Your task to perform on an android device: turn off wifi Image 0: 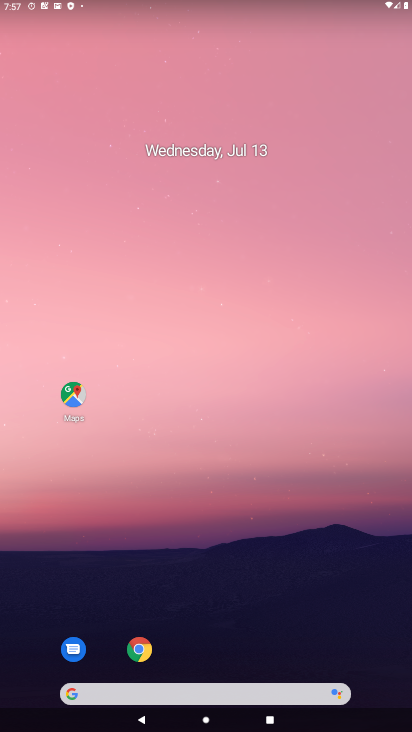
Step 0: drag from (188, 622) to (214, 32)
Your task to perform on an android device: turn off wifi Image 1: 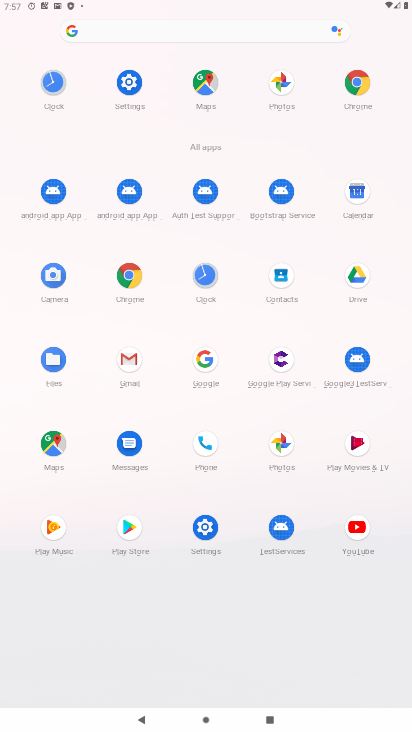
Step 1: click (198, 530)
Your task to perform on an android device: turn off wifi Image 2: 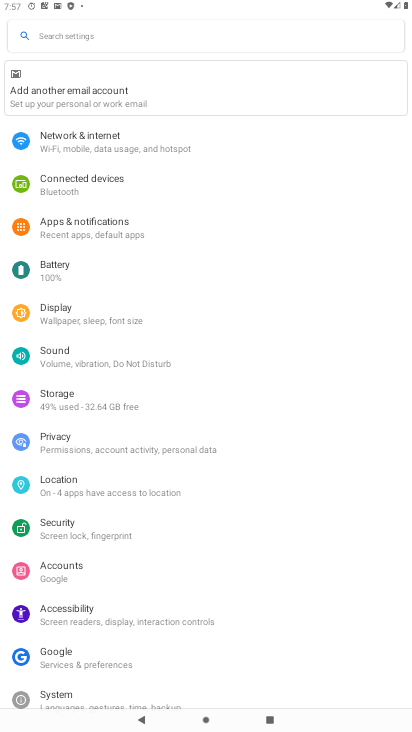
Step 2: click (99, 151)
Your task to perform on an android device: turn off wifi Image 3: 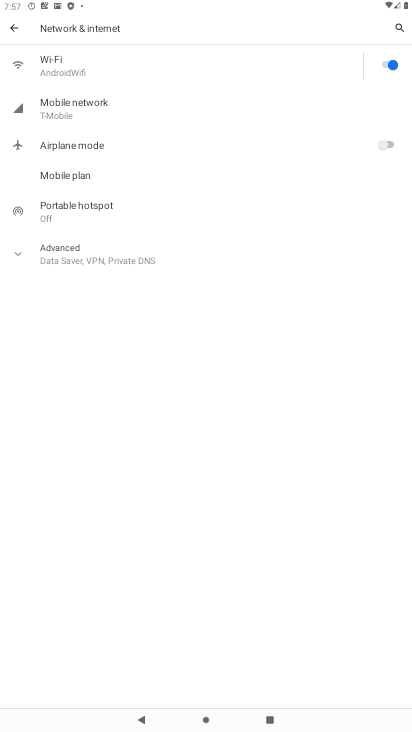
Step 3: click (377, 60)
Your task to perform on an android device: turn off wifi Image 4: 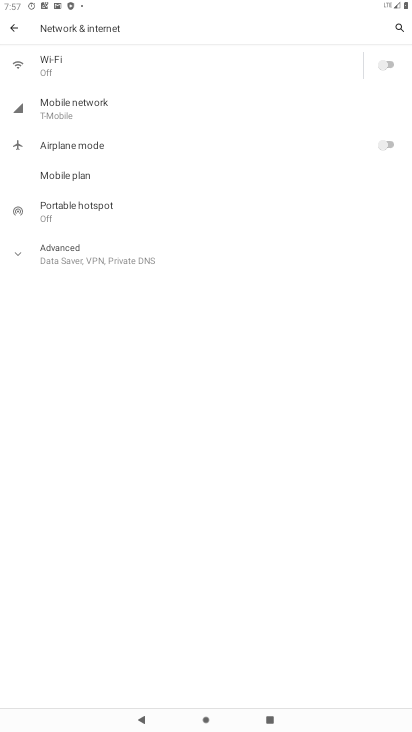
Step 4: task complete